Your task to perform on an android device: turn off improve location accuracy Image 0: 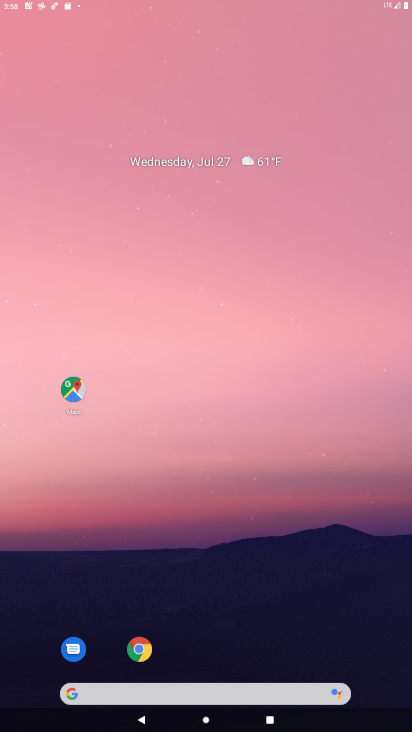
Step 0: drag from (199, 76) to (261, 33)
Your task to perform on an android device: turn off improve location accuracy Image 1: 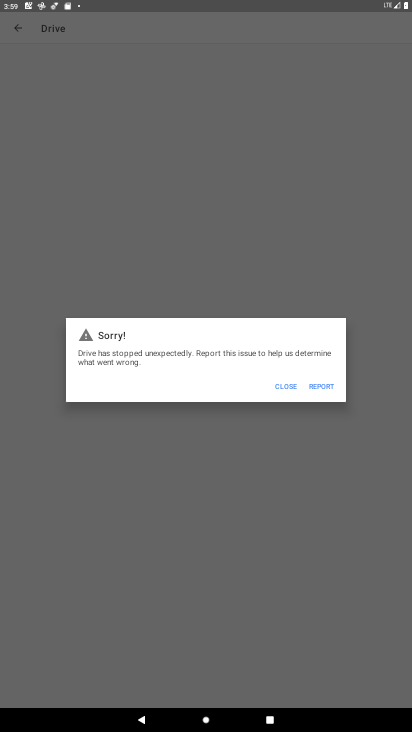
Step 1: press home button
Your task to perform on an android device: turn off improve location accuracy Image 2: 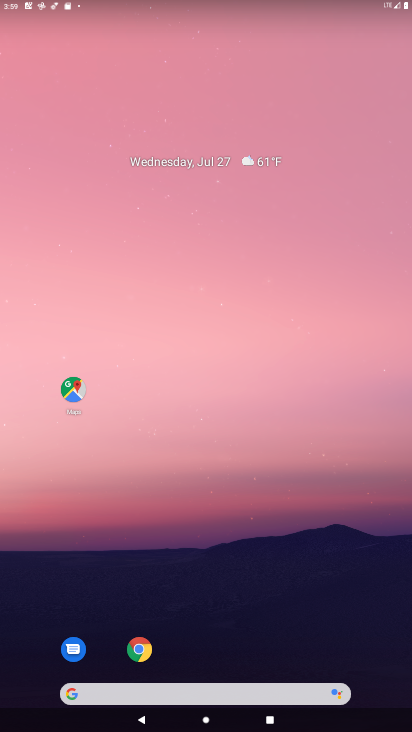
Step 2: drag from (186, 662) to (180, 23)
Your task to perform on an android device: turn off improve location accuracy Image 3: 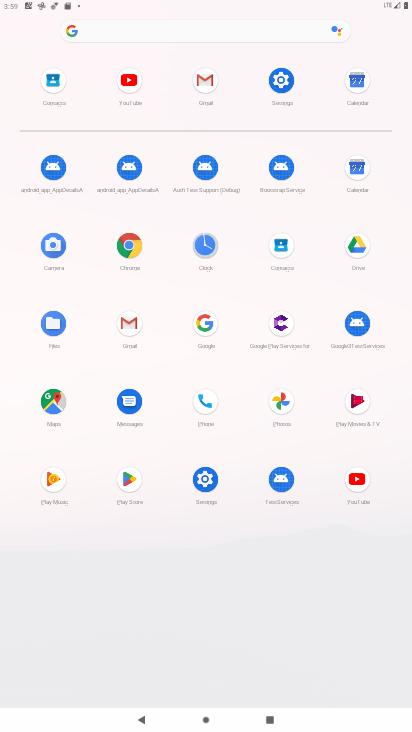
Step 3: click (206, 491)
Your task to perform on an android device: turn off improve location accuracy Image 4: 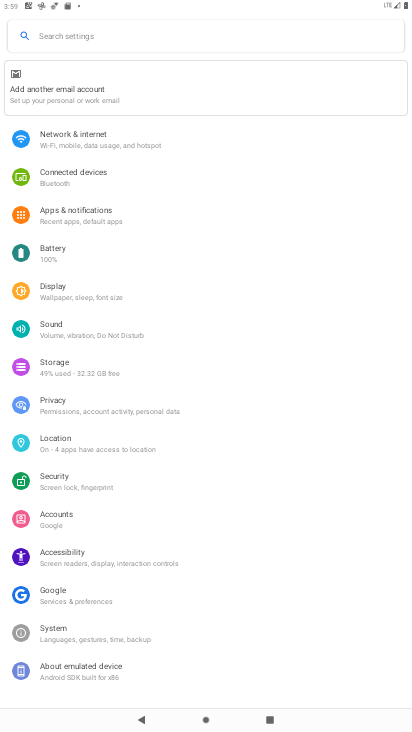
Step 4: click (49, 448)
Your task to perform on an android device: turn off improve location accuracy Image 5: 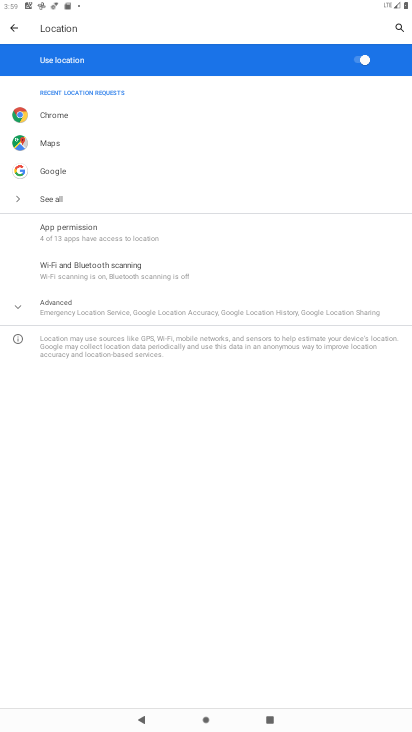
Step 5: click (75, 308)
Your task to perform on an android device: turn off improve location accuracy Image 6: 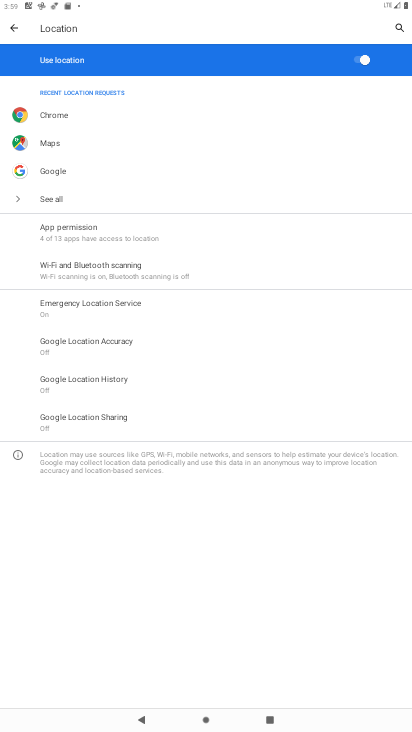
Step 6: click (78, 342)
Your task to perform on an android device: turn off improve location accuracy Image 7: 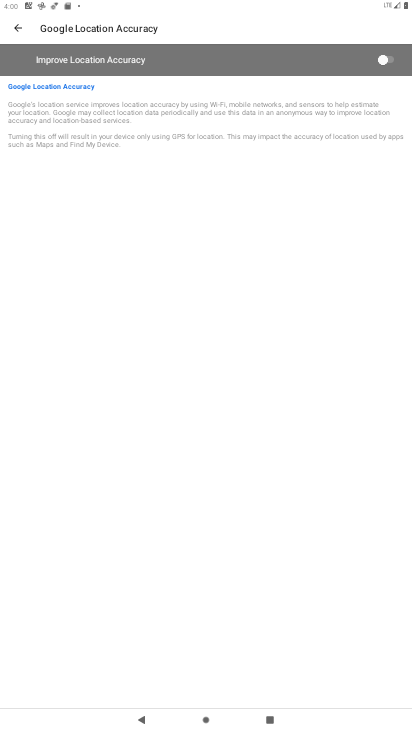
Step 7: click (389, 60)
Your task to perform on an android device: turn off improve location accuracy Image 8: 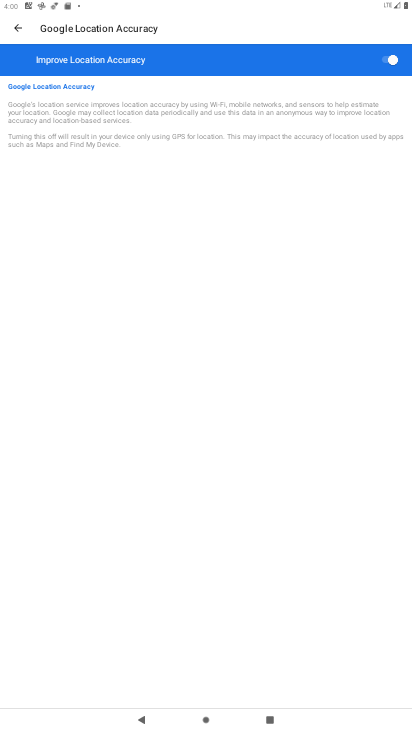
Step 8: task complete